Your task to perform on an android device: Turn on the flashlight Image 0: 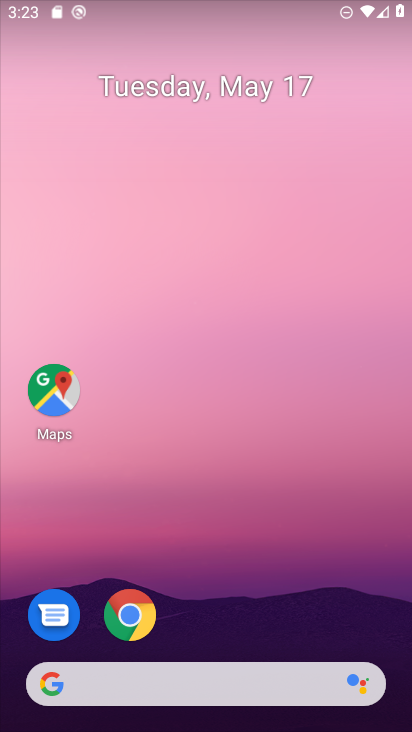
Step 0: drag from (195, 722) to (200, 256)
Your task to perform on an android device: Turn on the flashlight Image 1: 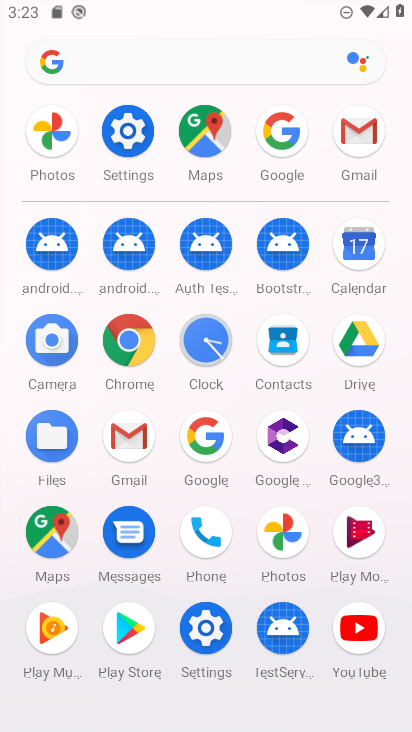
Step 1: click (124, 125)
Your task to perform on an android device: Turn on the flashlight Image 2: 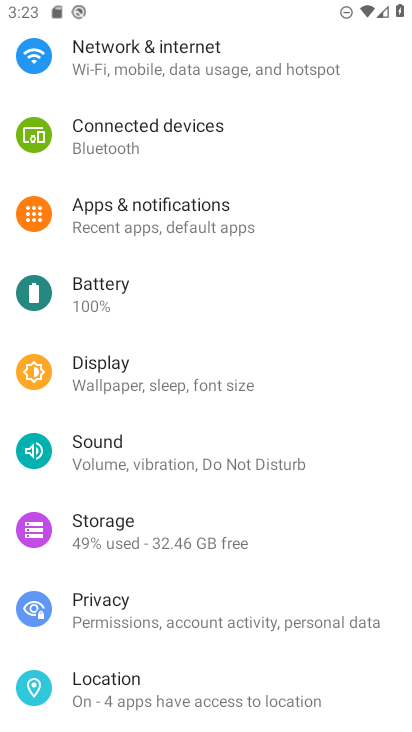
Step 2: task complete